Your task to perform on an android device: toggle notifications settings in the gmail app Image 0: 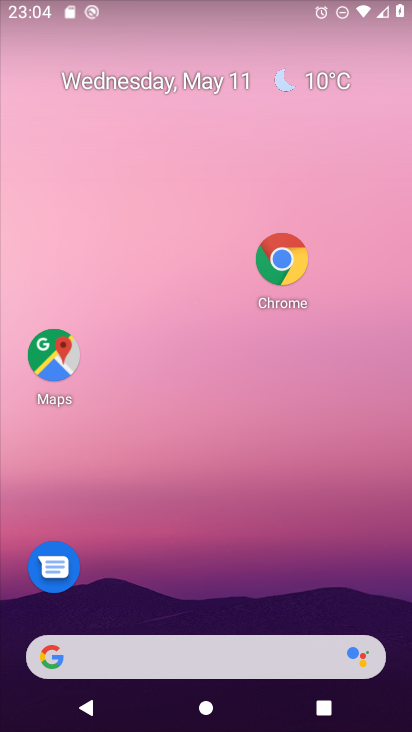
Step 0: drag from (181, 654) to (256, 147)
Your task to perform on an android device: toggle notifications settings in the gmail app Image 1: 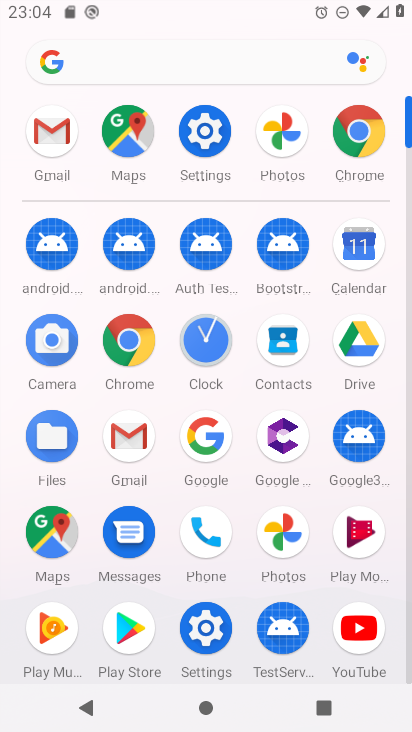
Step 1: click (53, 143)
Your task to perform on an android device: toggle notifications settings in the gmail app Image 2: 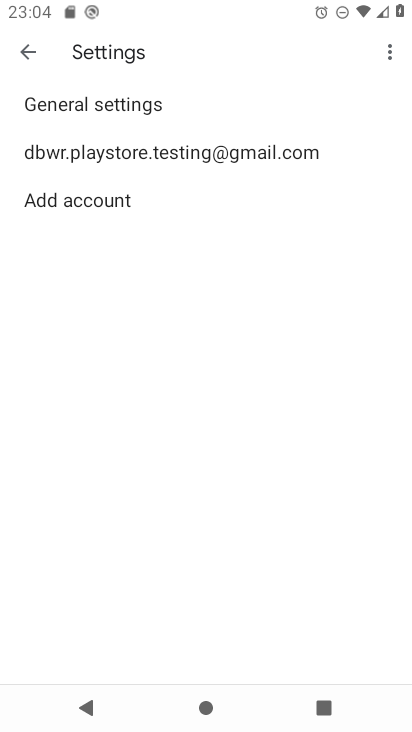
Step 2: click (194, 145)
Your task to perform on an android device: toggle notifications settings in the gmail app Image 3: 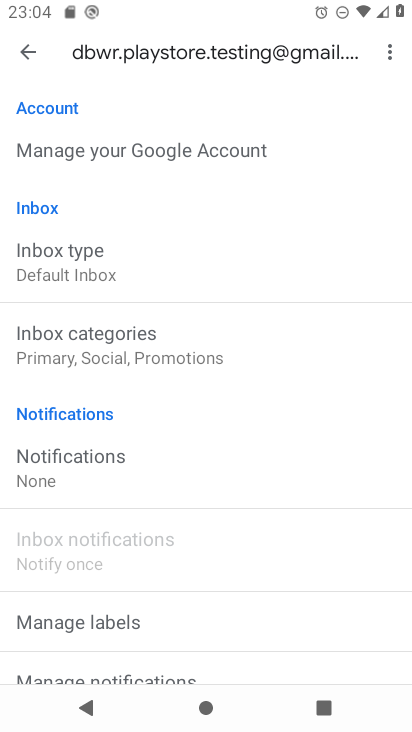
Step 3: click (96, 482)
Your task to perform on an android device: toggle notifications settings in the gmail app Image 4: 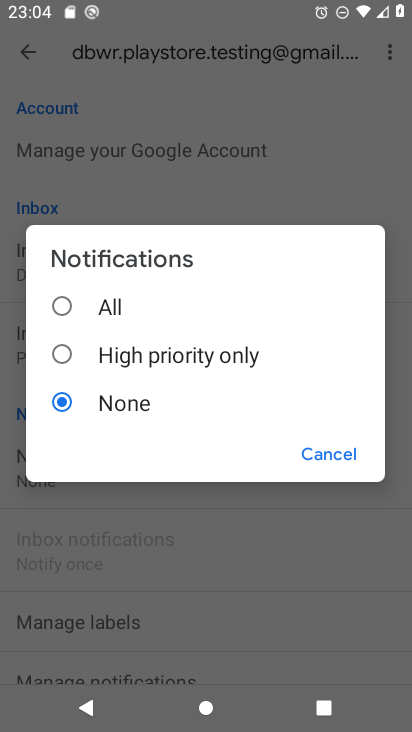
Step 4: click (69, 306)
Your task to perform on an android device: toggle notifications settings in the gmail app Image 5: 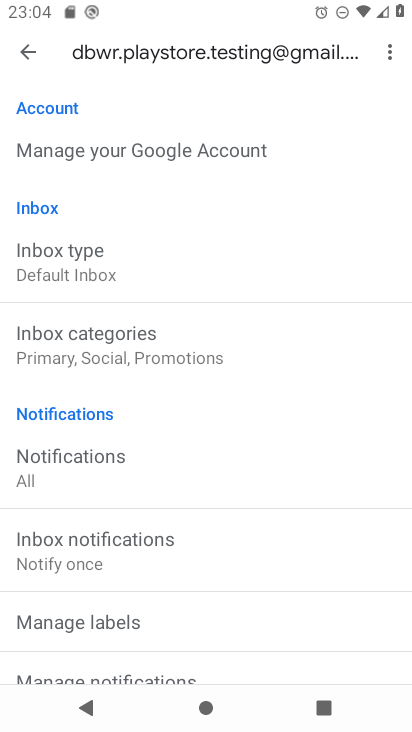
Step 5: task complete